Your task to perform on an android device: Open Youtube and go to "Your channel" Image 0: 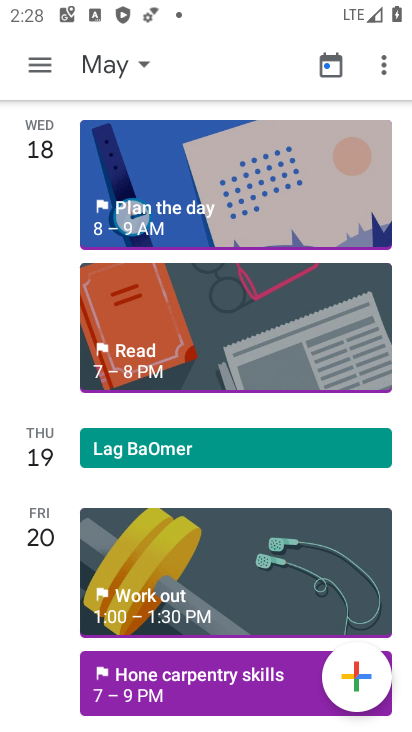
Step 0: press home button
Your task to perform on an android device: Open Youtube and go to "Your channel" Image 1: 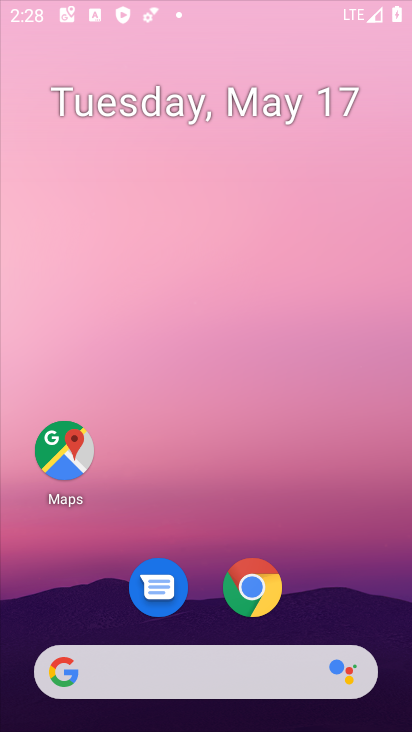
Step 1: drag from (218, 605) to (248, 270)
Your task to perform on an android device: Open Youtube and go to "Your channel" Image 2: 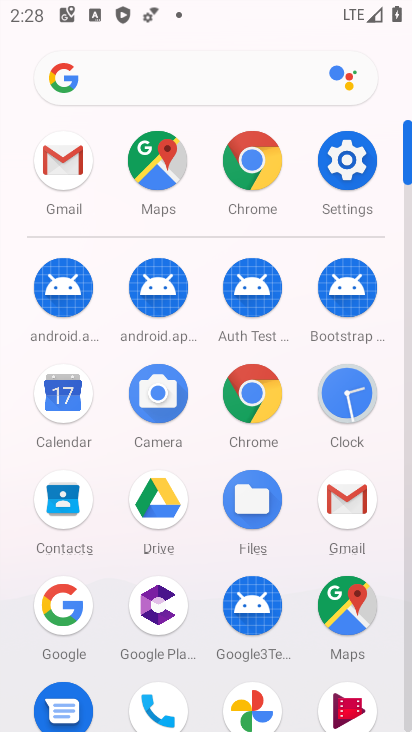
Step 2: click (249, 159)
Your task to perform on an android device: Open Youtube and go to "Your channel" Image 3: 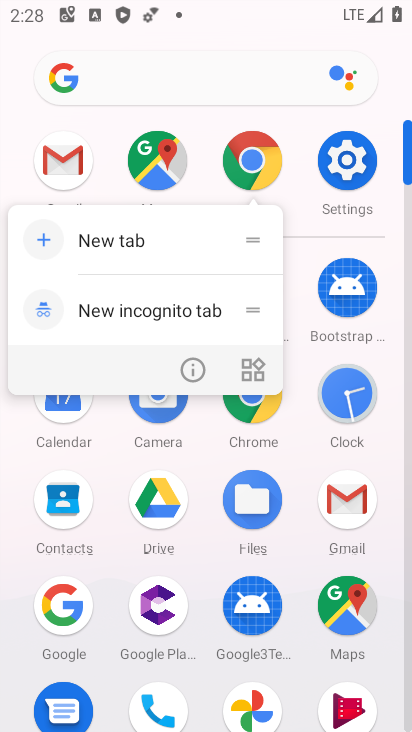
Step 3: click (297, 649)
Your task to perform on an android device: Open Youtube and go to "Your channel" Image 4: 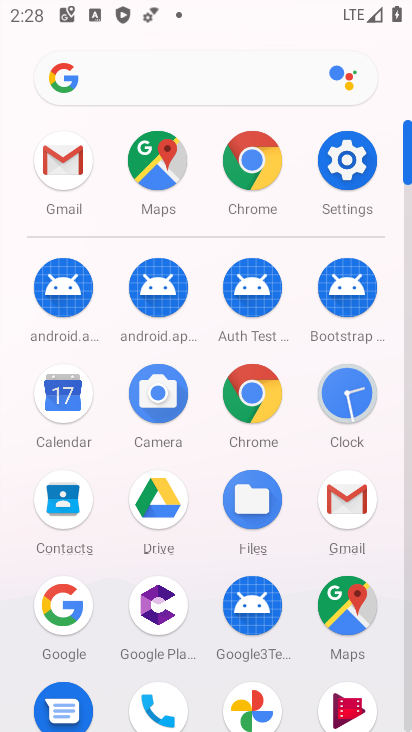
Step 4: drag from (298, 650) to (307, 295)
Your task to perform on an android device: Open Youtube and go to "Your channel" Image 5: 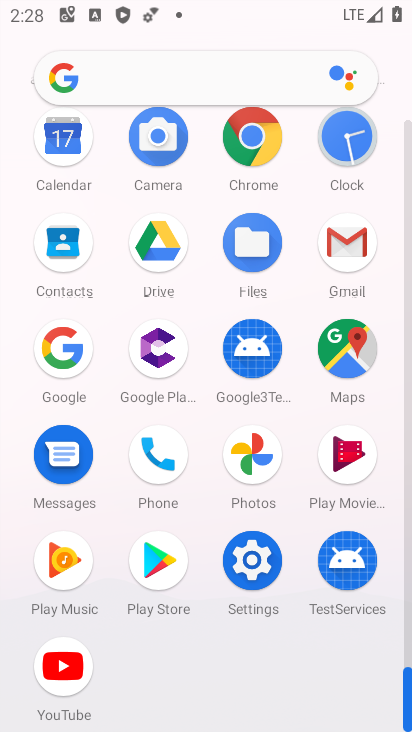
Step 5: click (63, 679)
Your task to perform on an android device: Open Youtube and go to "Your channel" Image 6: 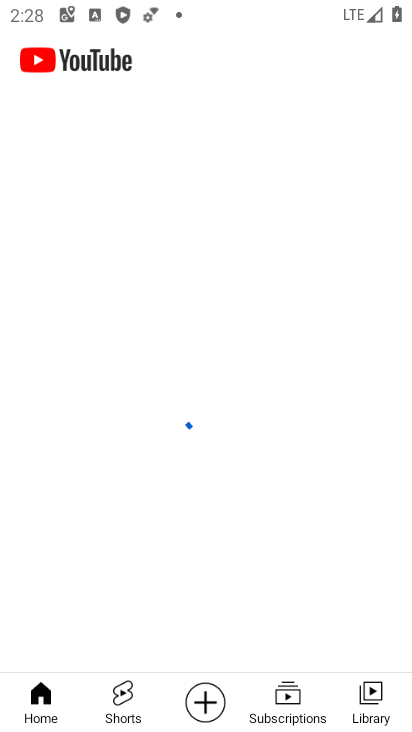
Step 6: drag from (215, 680) to (248, 244)
Your task to perform on an android device: Open Youtube and go to "Your channel" Image 7: 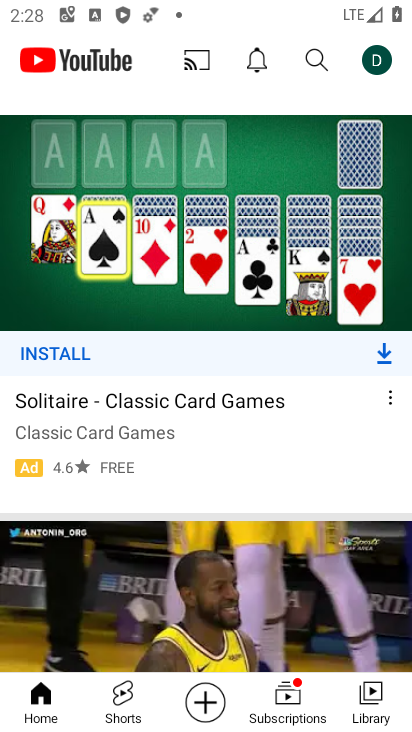
Step 7: click (380, 64)
Your task to perform on an android device: Open Youtube and go to "Your channel" Image 8: 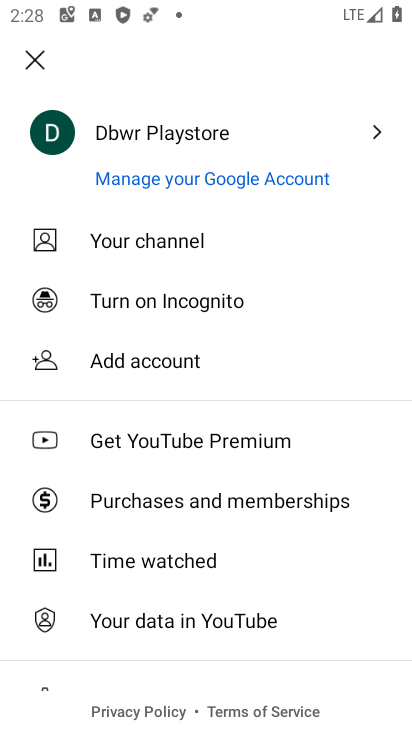
Step 8: click (146, 237)
Your task to perform on an android device: Open Youtube and go to "Your channel" Image 9: 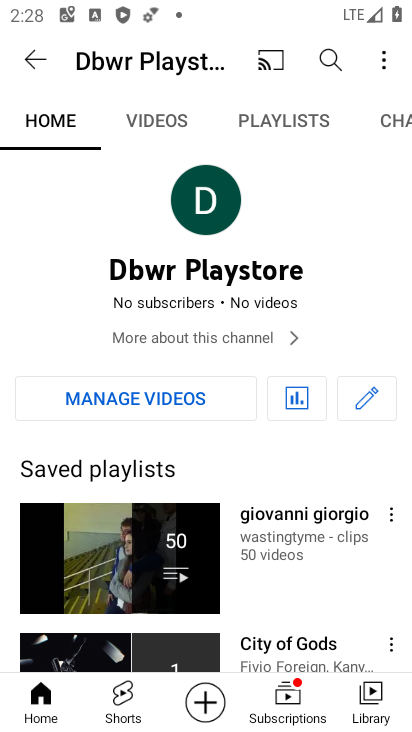
Step 9: click (239, 261)
Your task to perform on an android device: Open Youtube and go to "Your channel" Image 10: 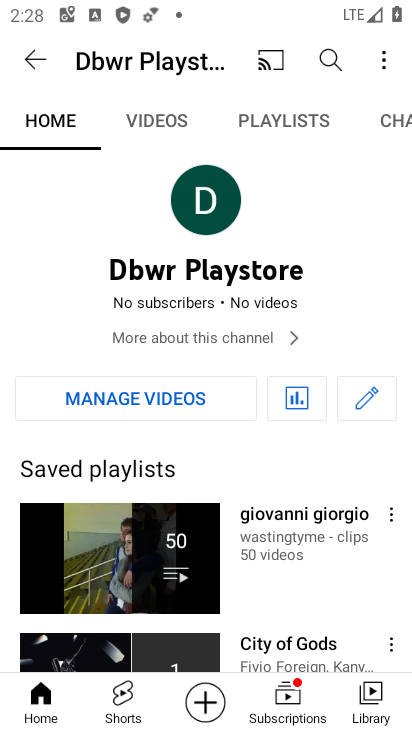
Step 10: click (287, 272)
Your task to perform on an android device: Open Youtube and go to "Your channel" Image 11: 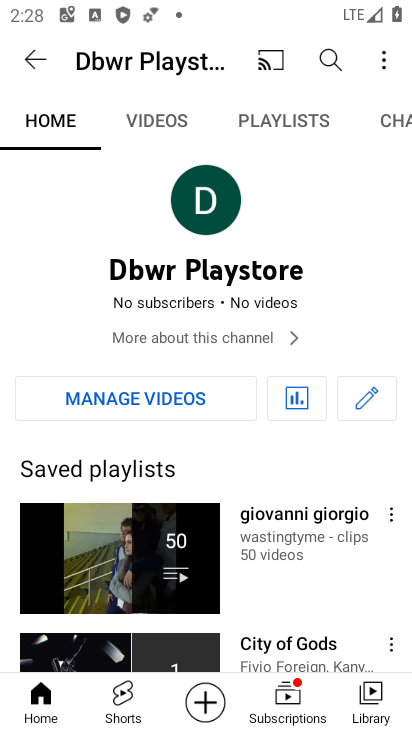
Step 11: click (226, 201)
Your task to perform on an android device: Open Youtube and go to "Your channel" Image 12: 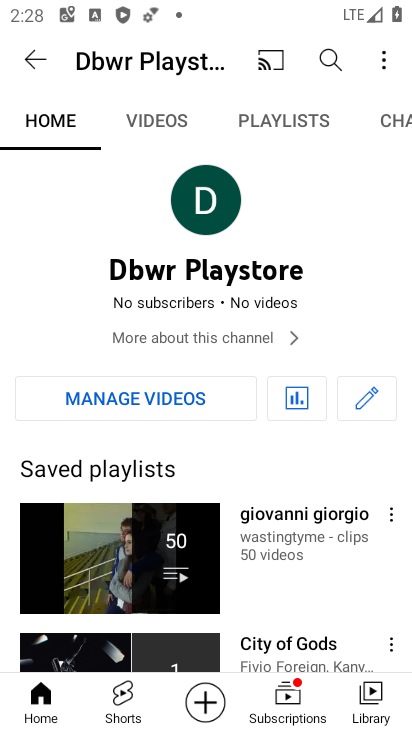
Step 12: click (193, 258)
Your task to perform on an android device: Open Youtube and go to "Your channel" Image 13: 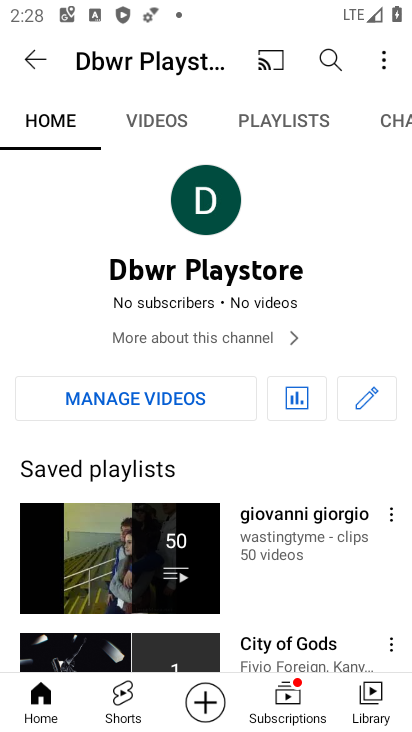
Step 13: click (194, 207)
Your task to perform on an android device: Open Youtube and go to "Your channel" Image 14: 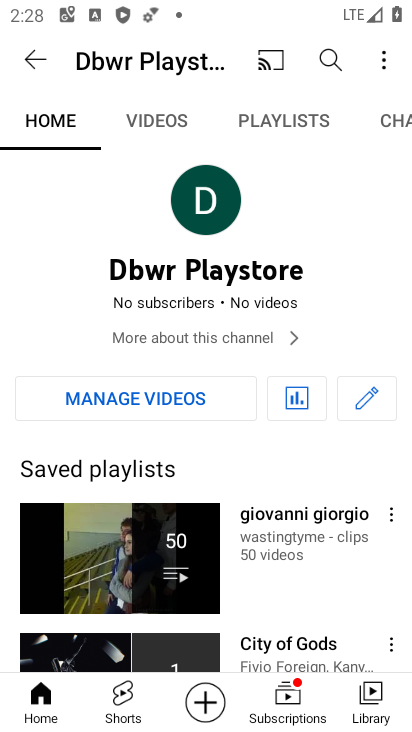
Step 14: click (216, 229)
Your task to perform on an android device: Open Youtube and go to "Your channel" Image 15: 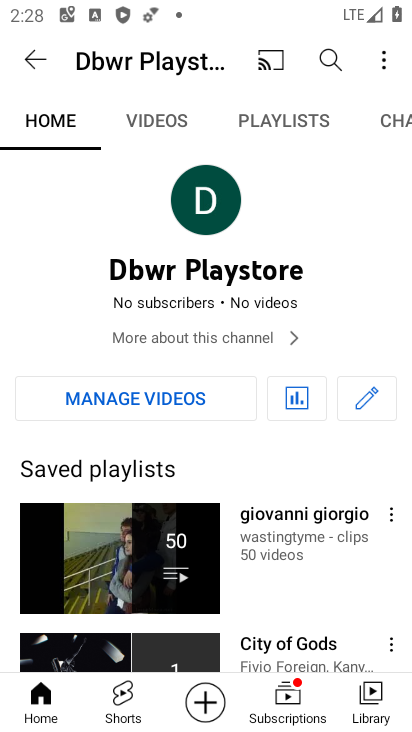
Step 15: task complete